Your task to perform on an android device: Play the last video I watched on Youtube Image 0: 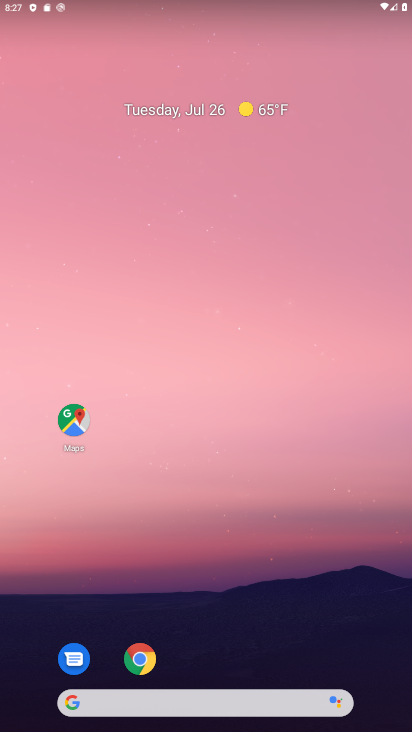
Step 0: drag from (186, 451) to (226, 102)
Your task to perform on an android device: Play the last video I watched on Youtube Image 1: 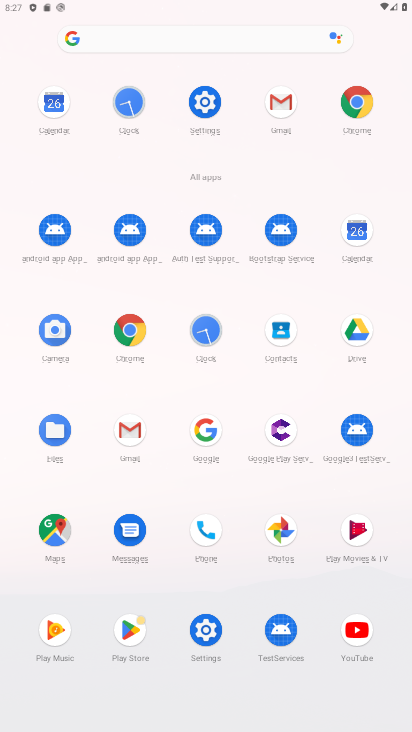
Step 1: click (357, 648)
Your task to perform on an android device: Play the last video I watched on Youtube Image 2: 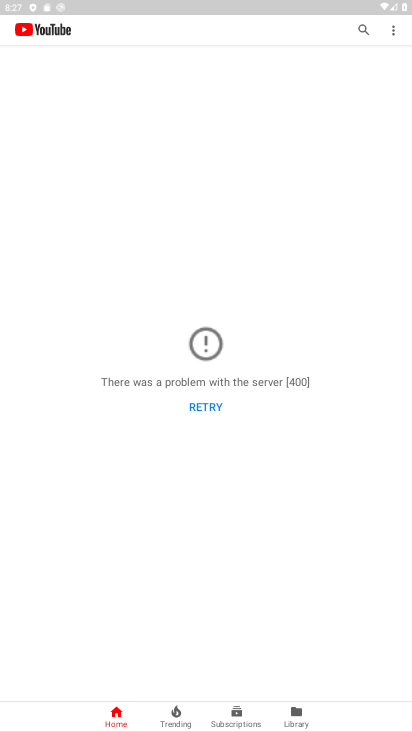
Step 2: task complete